Your task to perform on an android device: open a bookmark in the chrome app Image 0: 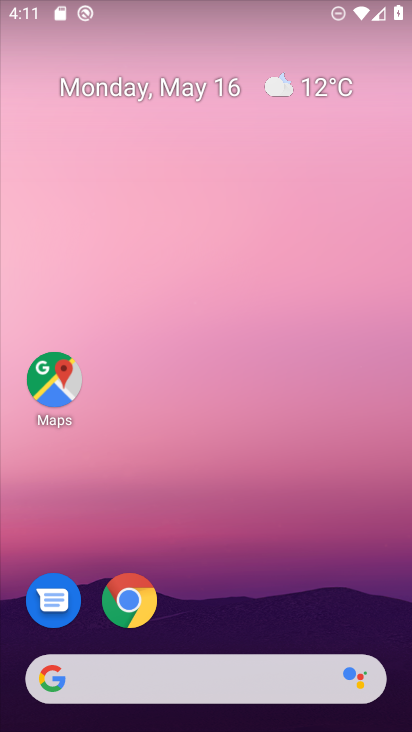
Step 0: click (122, 605)
Your task to perform on an android device: open a bookmark in the chrome app Image 1: 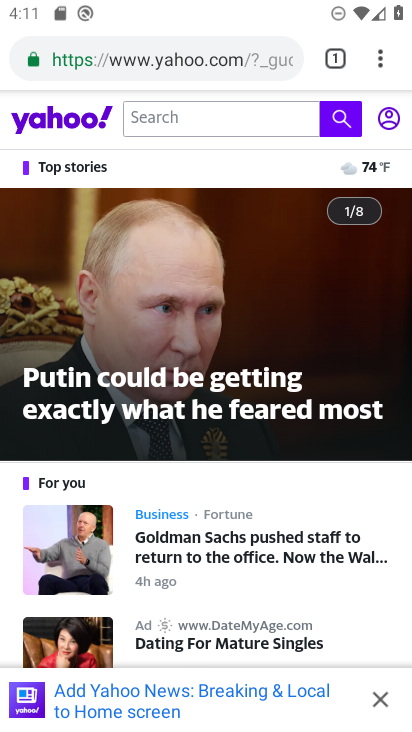
Step 1: task complete